Your task to perform on an android device: find photos in the google photos app Image 0: 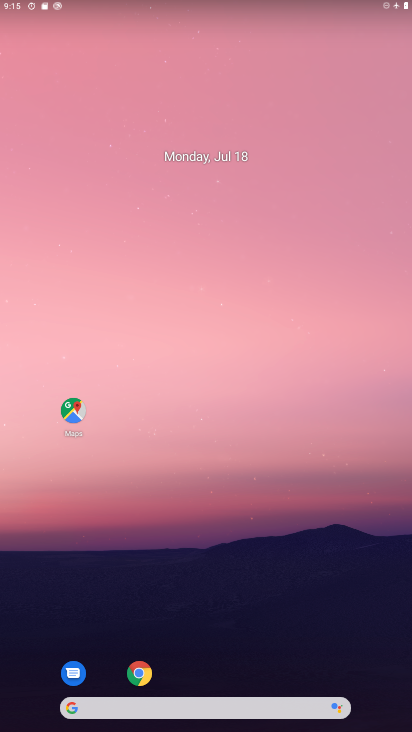
Step 0: press home button
Your task to perform on an android device: find photos in the google photos app Image 1: 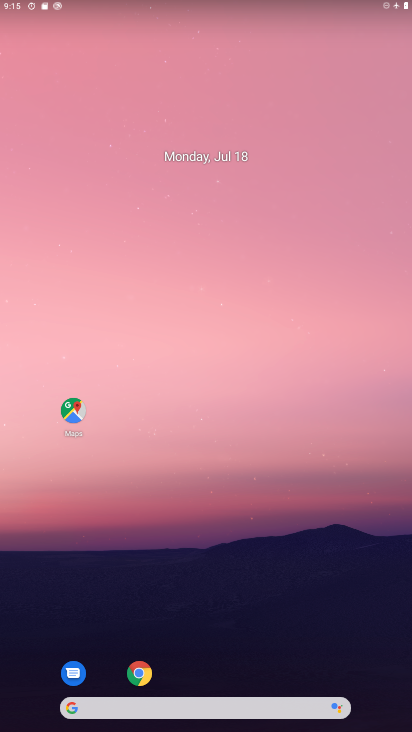
Step 1: drag from (236, 658) to (212, 8)
Your task to perform on an android device: find photos in the google photos app Image 2: 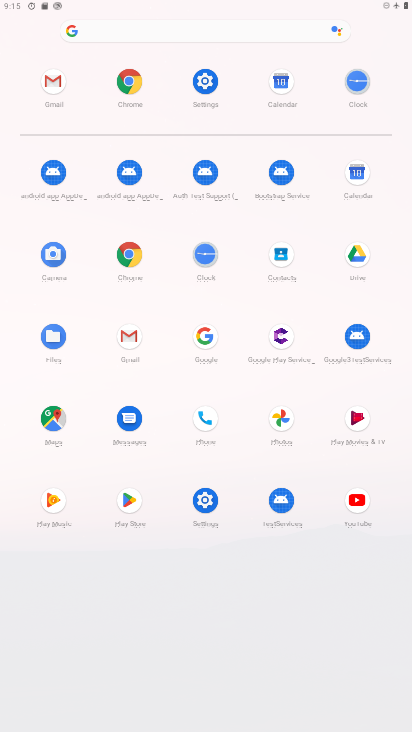
Step 2: click (280, 414)
Your task to perform on an android device: find photos in the google photos app Image 3: 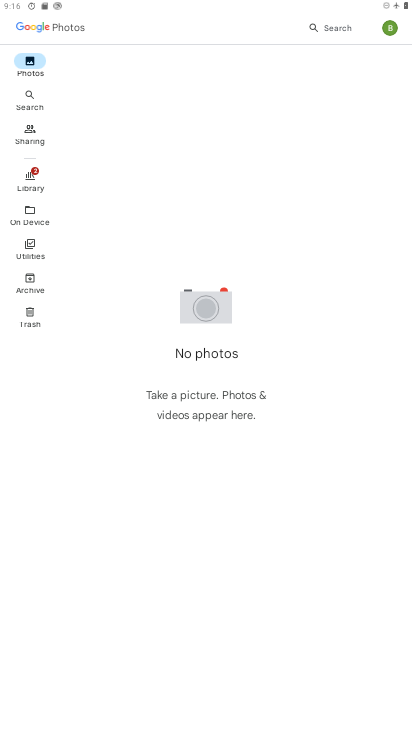
Step 3: task complete